Your task to perform on an android device: find photos in the google photos app Image 0: 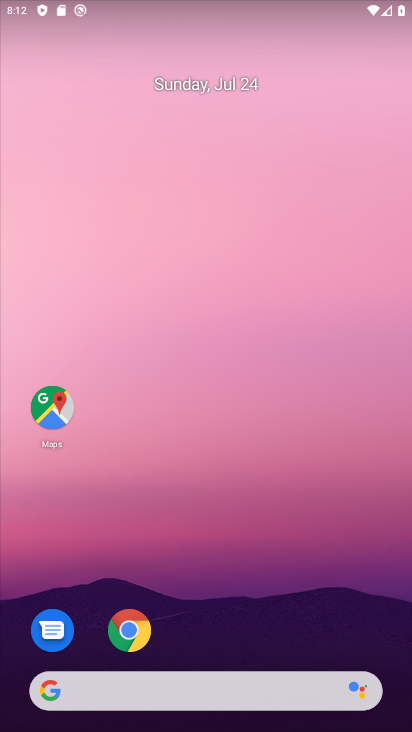
Step 0: drag from (222, 607) to (228, 226)
Your task to perform on an android device: find photos in the google photos app Image 1: 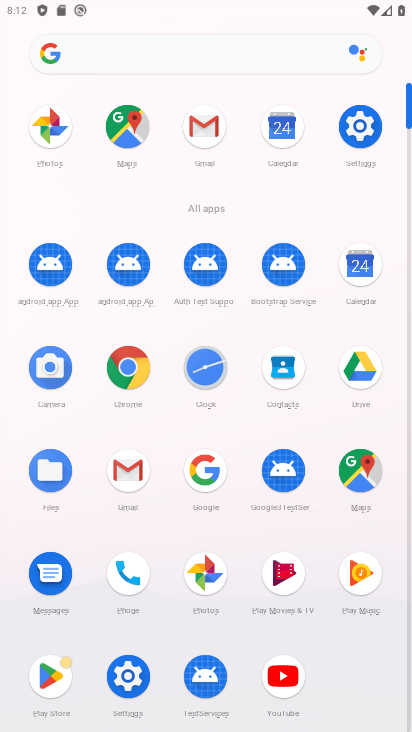
Step 1: click (205, 567)
Your task to perform on an android device: find photos in the google photos app Image 2: 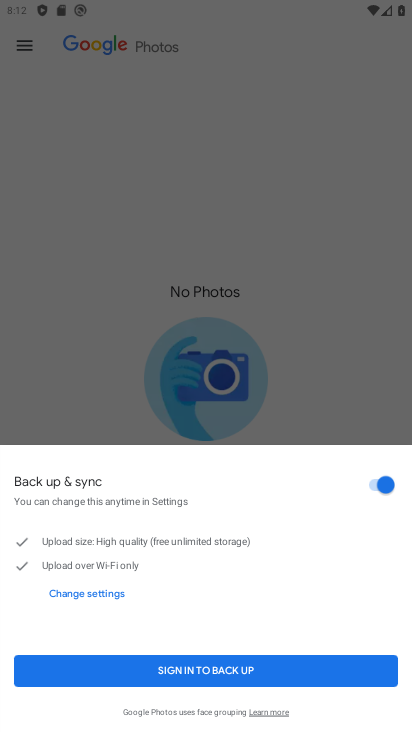
Step 2: click (229, 663)
Your task to perform on an android device: find photos in the google photos app Image 3: 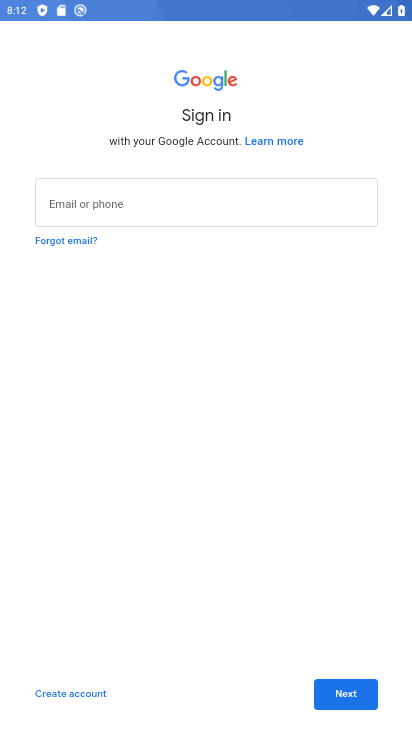
Step 3: task complete